Your task to perform on an android device: What's the weather going to be this weekend? Image 0: 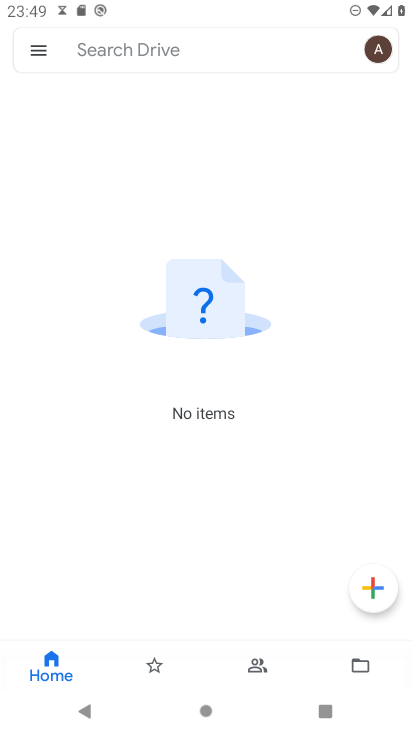
Step 0: press home button
Your task to perform on an android device: What's the weather going to be this weekend? Image 1: 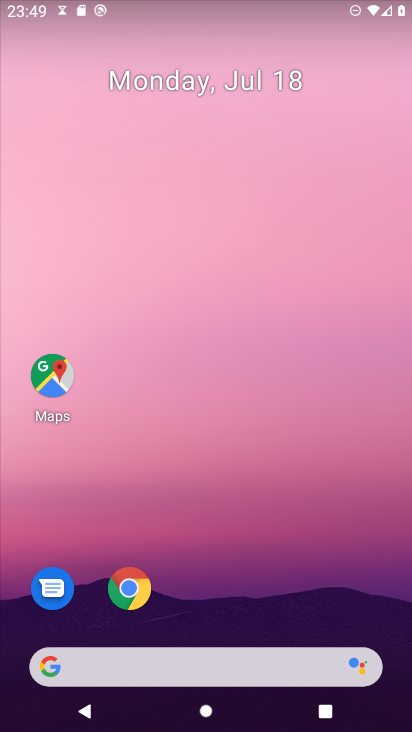
Step 1: click (43, 664)
Your task to perform on an android device: What's the weather going to be this weekend? Image 2: 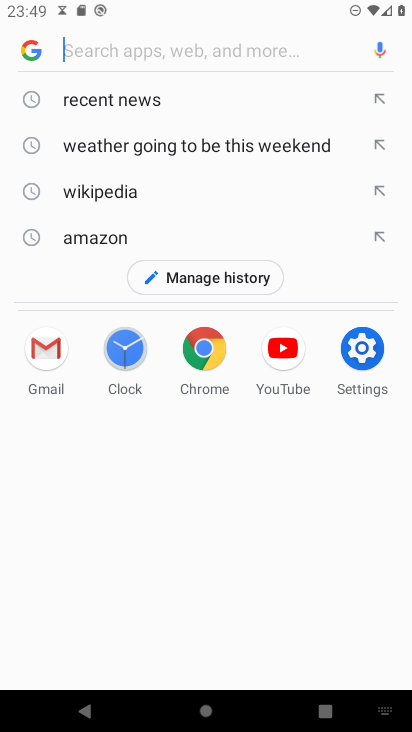
Step 2: type "weather going to be this weekend?"
Your task to perform on an android device: What's the weather going to be this weekend? Image 3: 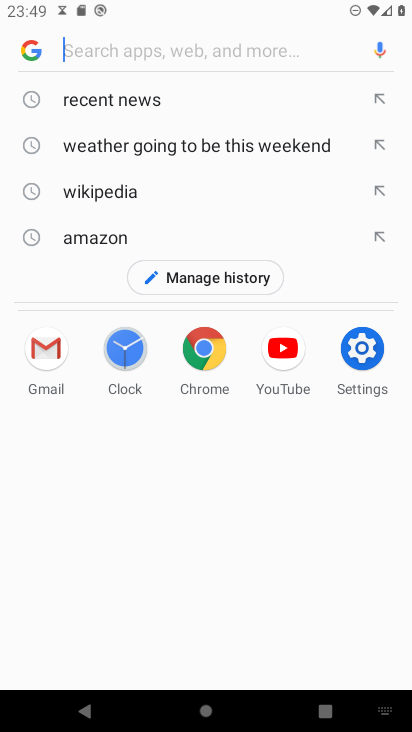
Step 3: click (118, 44)
Your task to perform on an android device: What's the weather going to be this weekend? Image 4: 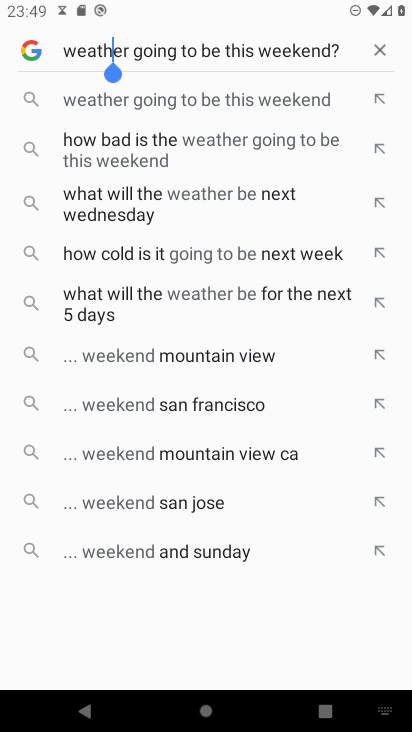
Step 4: press enter
Your task to perform on an android device: What's the weather going to be this weekend? Image 5: 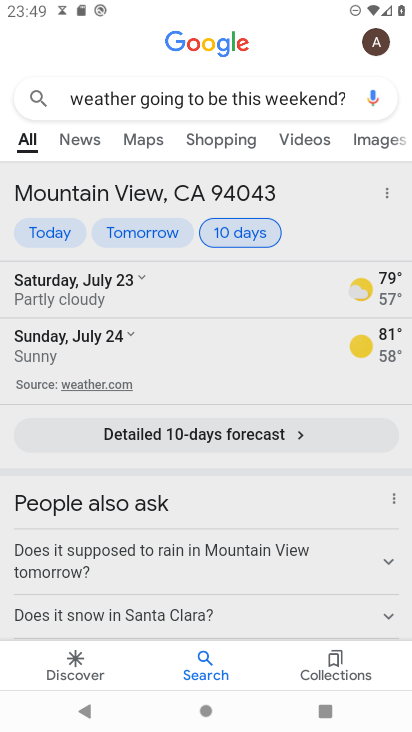
Step 5: task complete